Your task to perform on an android device: Go to location settings Image 0: 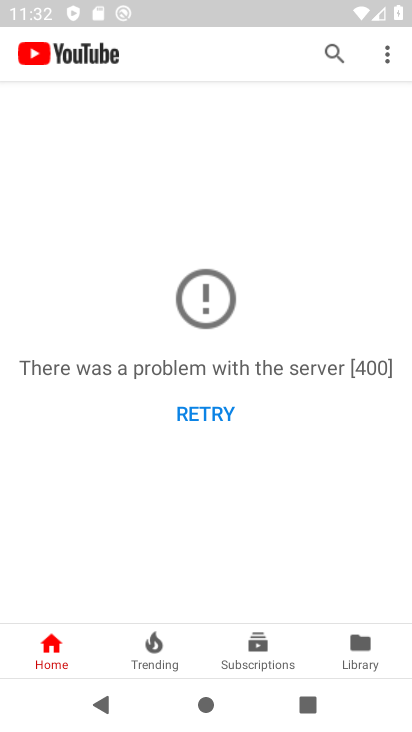
Step 0: press home button
Your task to perform on an android device: Go to location settings Image 1: 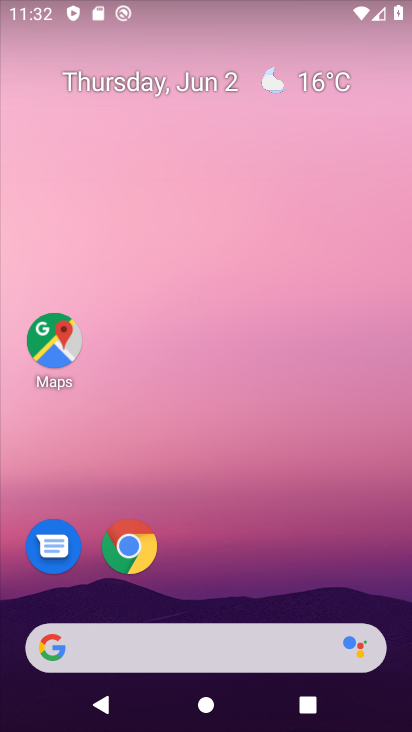
Step 1: drag from (268, 518) to (166, 165)
Your task to perform on an android device: Go to location settings Image 2: 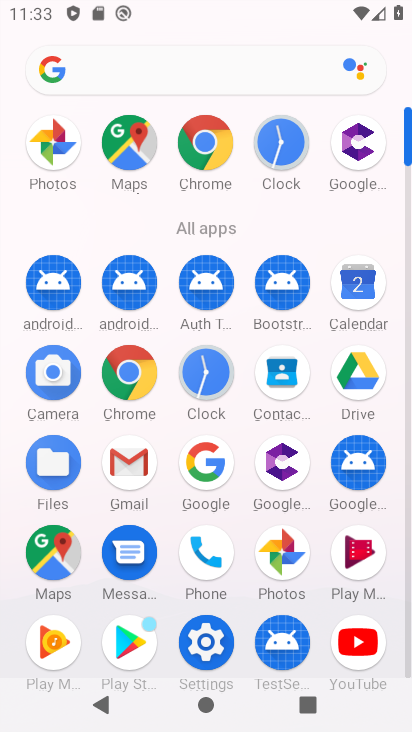
Step 2: click (209, 642)
Your task to perform on an android device: Go to location settings Image 3: 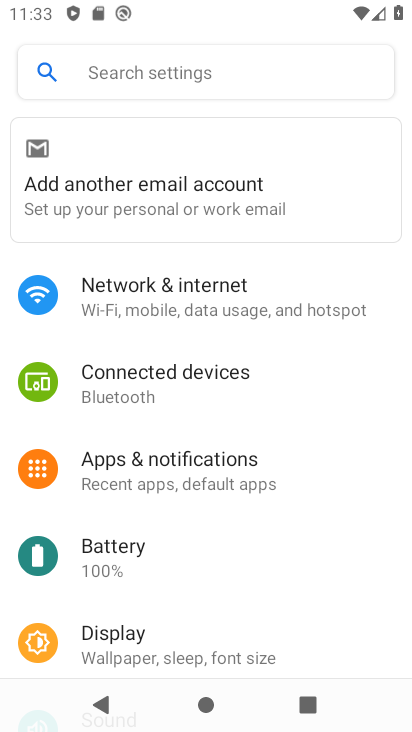
Step 3: drag from (213, 582) to (180, 314)
Your task to perform on an android device: Go to location settings Image 4: 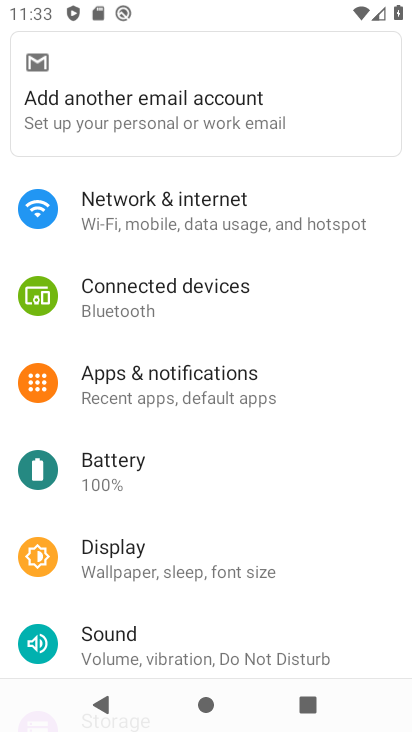
Step 4: drag from (196, 520) to (187, 235)
Your task to perform on an android device: Go to location settings Image 5: 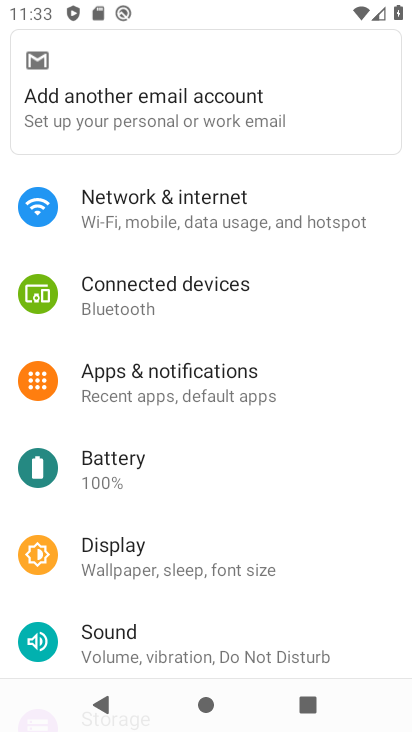
Step 5: drag from (187, 598) to (168, 293)
Your task to perform on an android device: Go to location settings Image 6: 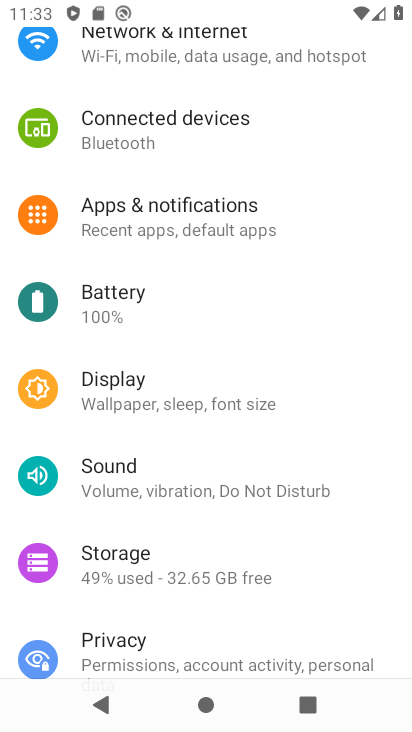
Step 6: drag from (182, 601) to (162, 306)
Your task to perform on an android device: Go to location settings Image 7: 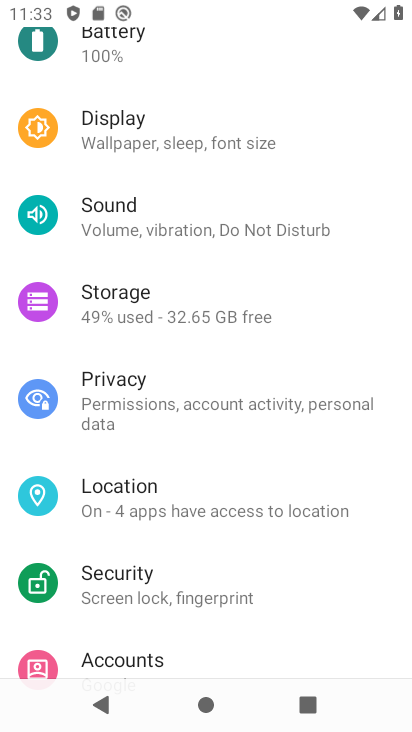
Step 7: click (123, 488)
Your task to perform on an android device: Go to location settings Image 8: 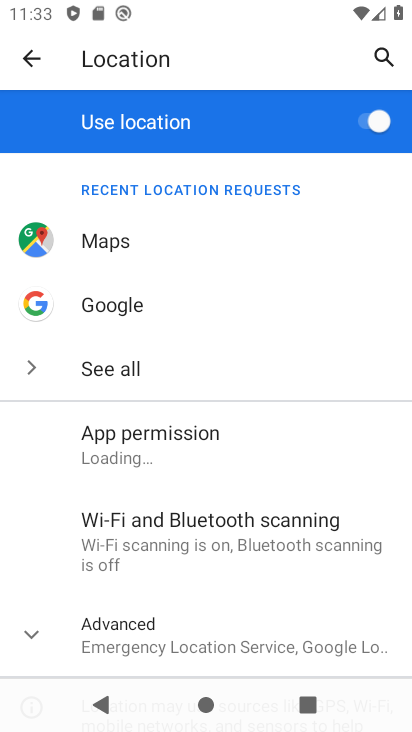
Step 8: task complete